Your task to perform on an android device: open the mobile data screen to see how much data has been used Image 0: 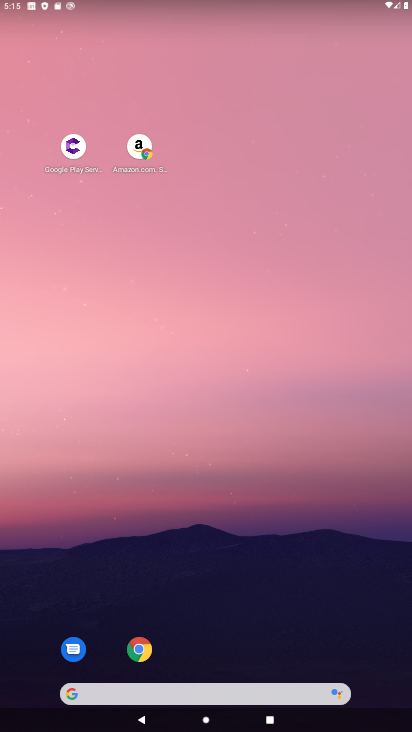
Step 0: drag from (200, 682) to (239, 328)
Your task to perform on an android device: open the mobile data screen to see how much data has been used Image 1: 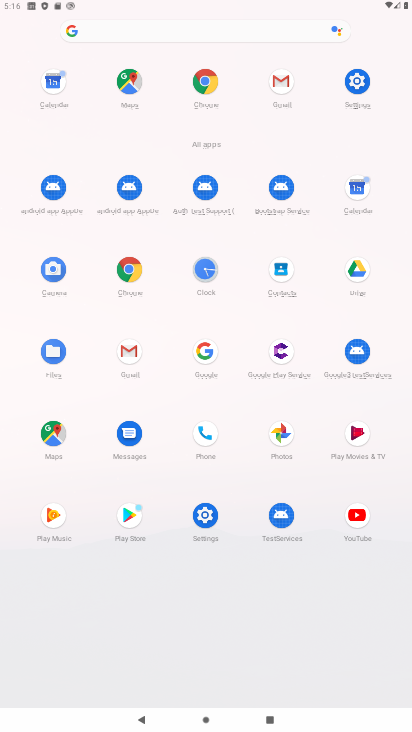
Step 1: click (205, 515)
Your task to perform on an android device: open the mobile data screen to see how much data has been used Image 2: 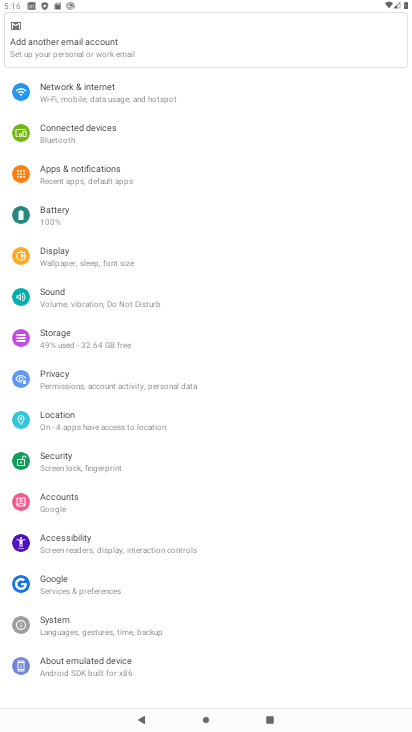
Step 2: click (88, 96)
Your task to perform on an android device: open the mobile data screen to see how much data has been used Image 3: 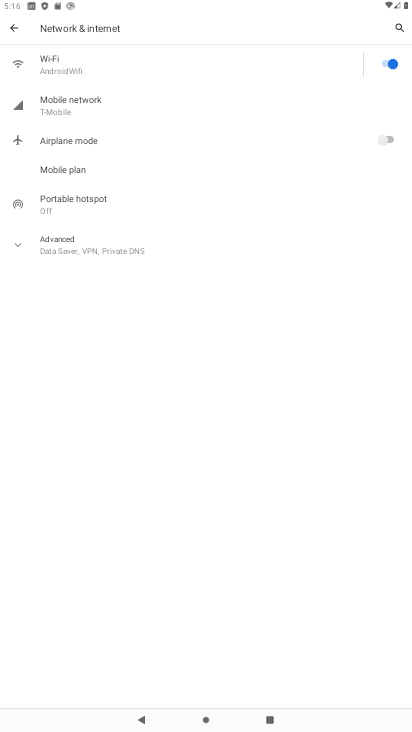
Step 3: click (79, 99)
Your task to perform on an android device: open the mobile data screen to see how much data has been used Image 4: 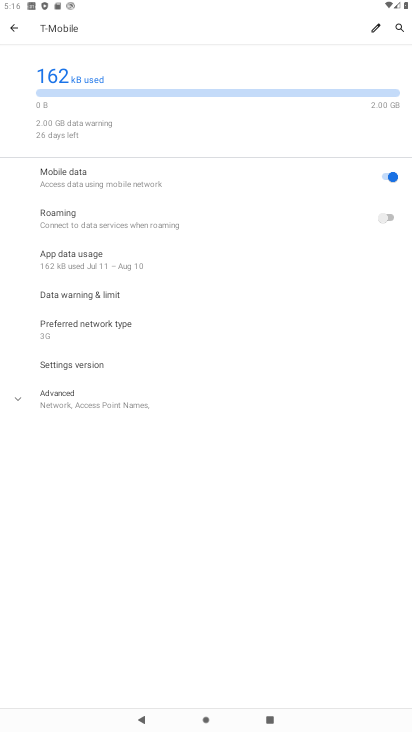
Step 4: task complete